Your task to perform on an android device: find photos in the google photos app Image 0: 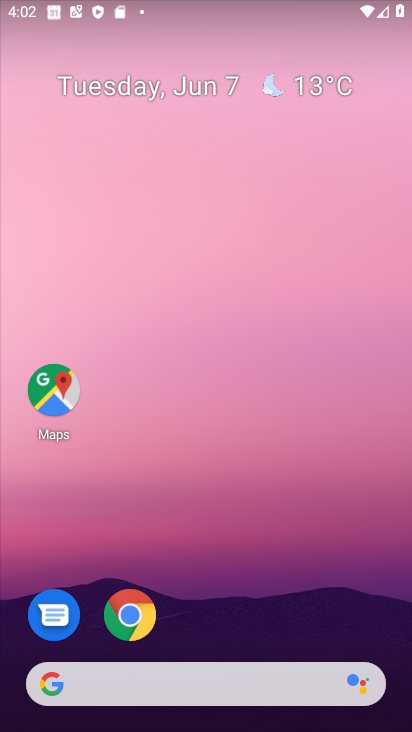
Step 0: drag from (235, 512) to (149, 75)
Your task to perform on an android device: find photos in the google photos app Image 1: 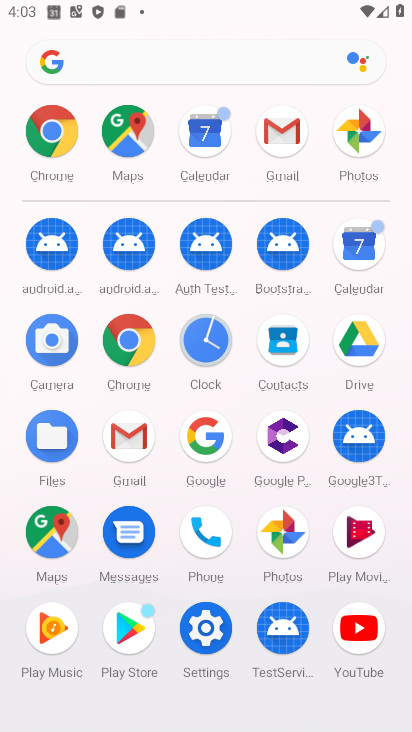
Step 1: click (278, 545)
Your task to perform on an android device: find photos in the google photos app Image 2: 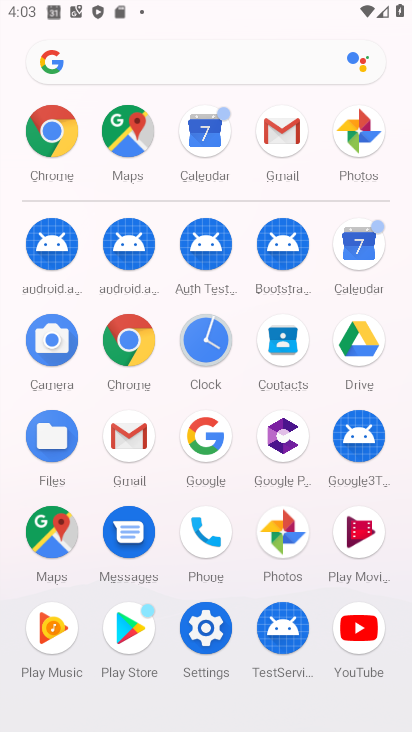
Step 2: click (278, 541)
Your task to perform on an android device: find photos in the google photos app Image 3: 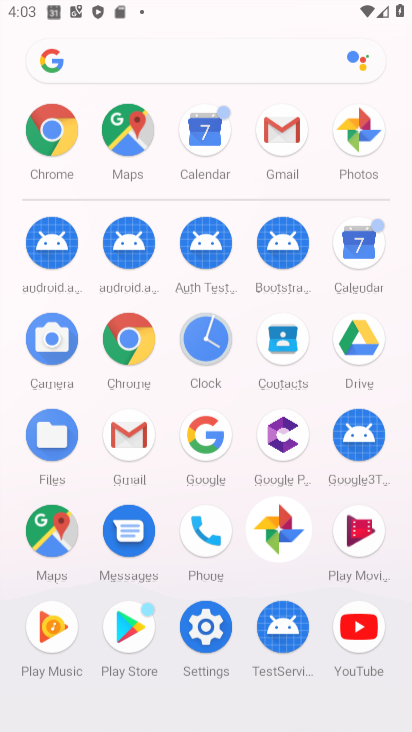
Step 3: click (277, 540)
Your task to perform on an android device: find photos in the google photos app Image 4: 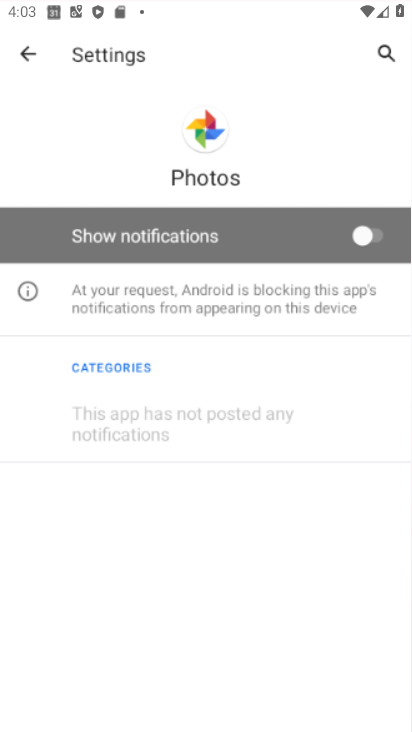
Step 4: click (277, 540)
Your task to perform on an android device: find photos in the google photos app Image 5: 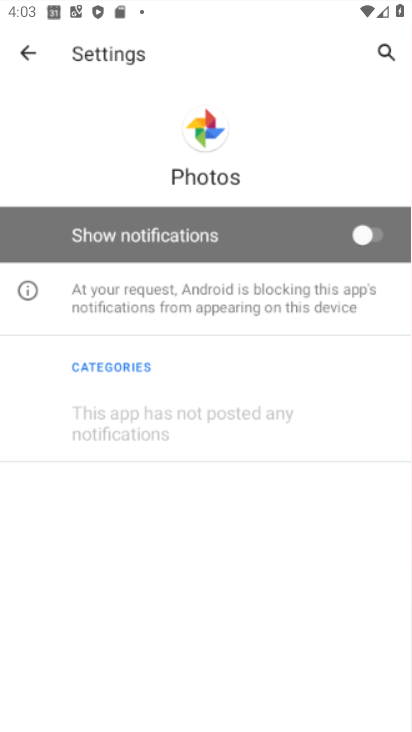
Step 5: click (272, 540)
Your task to perform on an android device: find photos in the google photos app Image 6: 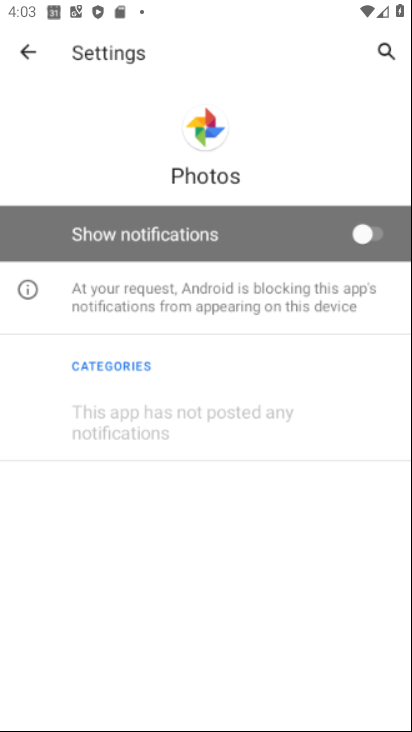
Step 6: click (270, 541)
Your task to perform on an android device: find photos in the google photos app Image 7: 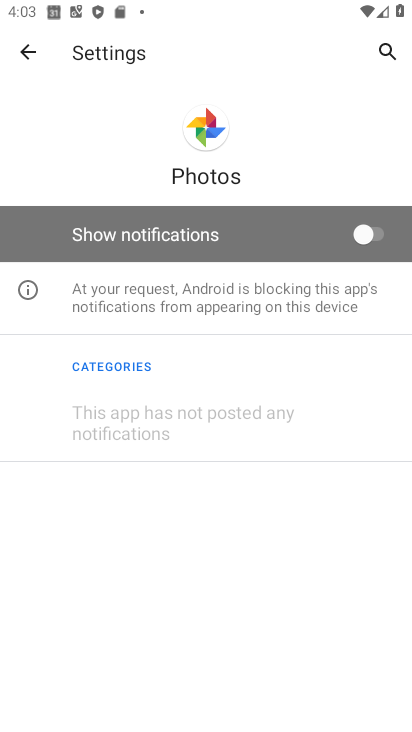
Step 7: click (22, 56)
Your task to perform on an android device: find photos in the google photos app Image 8: 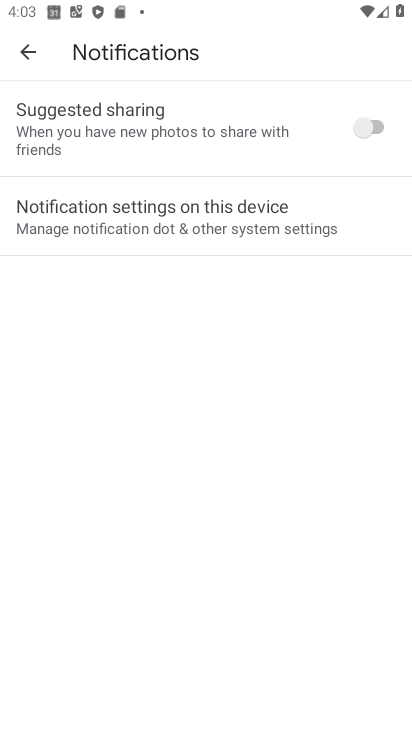
Step 8: click (28, 48)
Your task to perform on an android device: find photos in the google photos app Image 9: 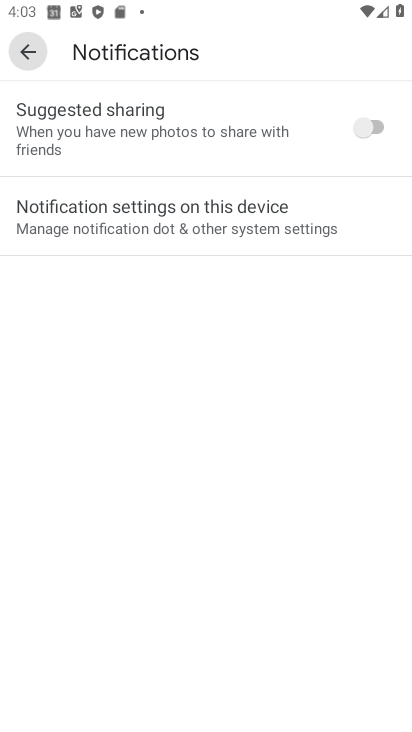
Step 9: click (27, 47)
Your task to perform on an android device: find photos in the google photos app Image 10: 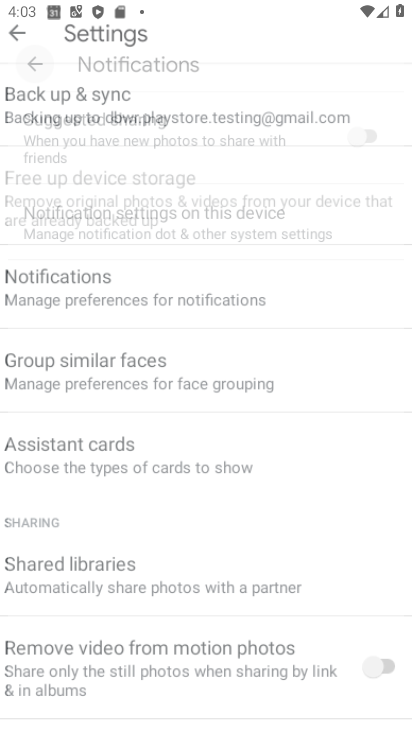
Step 10: click (25, 48)
Your task to perform on an android device: find photos in the google photos app Image 11: 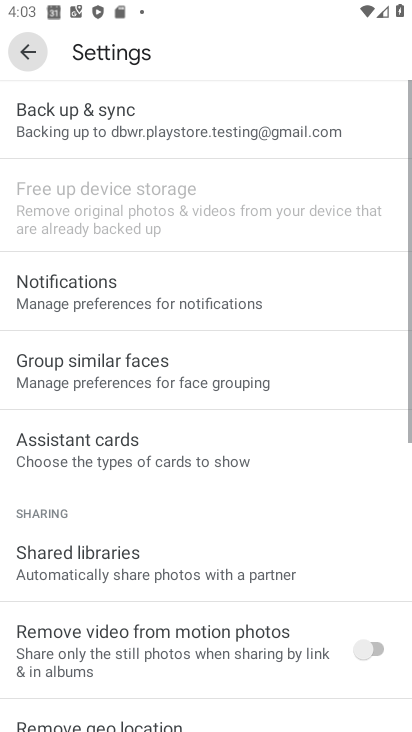
Step 11: click (21, 50)
Your task to perform on an android device: find photos in the google photos app Image 12: 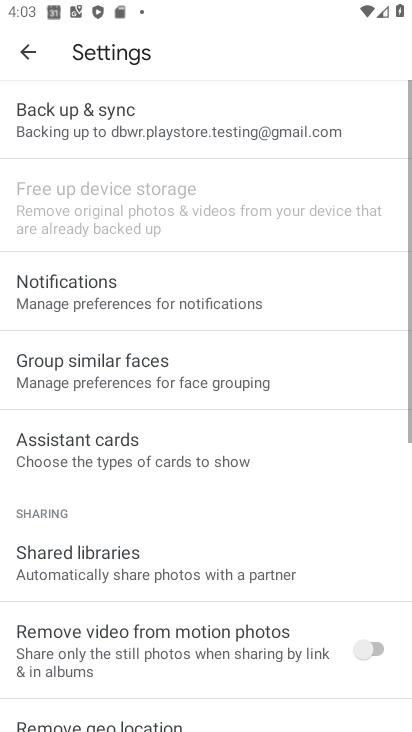
Step 12: click (20, 49)
Your task to perform on an android device: find photos in the google photos app Image 13: 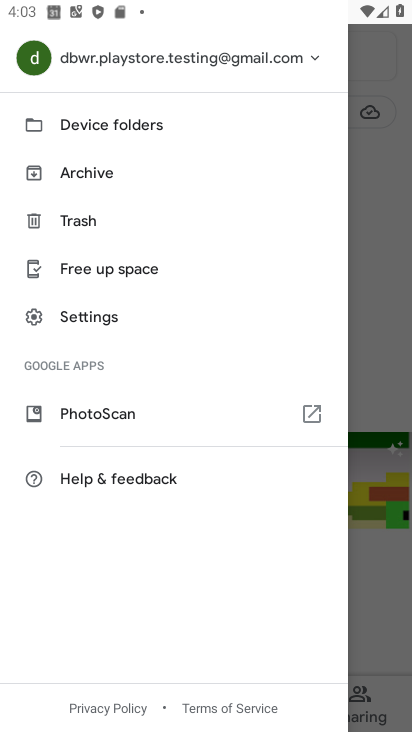
Step 13: click (359, 321)
Your task to perform on an android device: find photos in the google photos app Image 14: 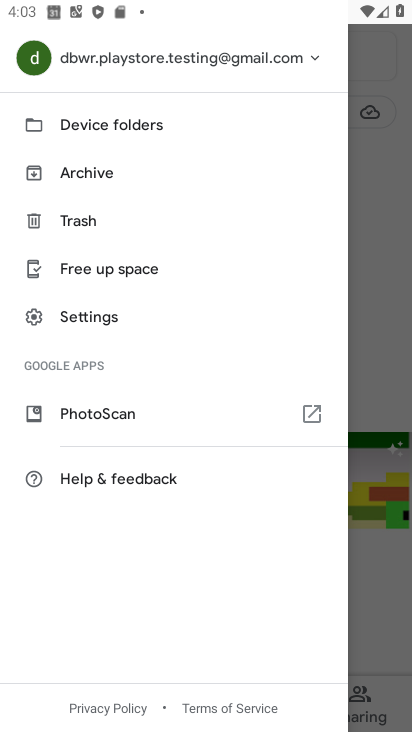
Step 14: click (359, 321)
Your task to perform on an android device: find photos in the google photos app Image 15: 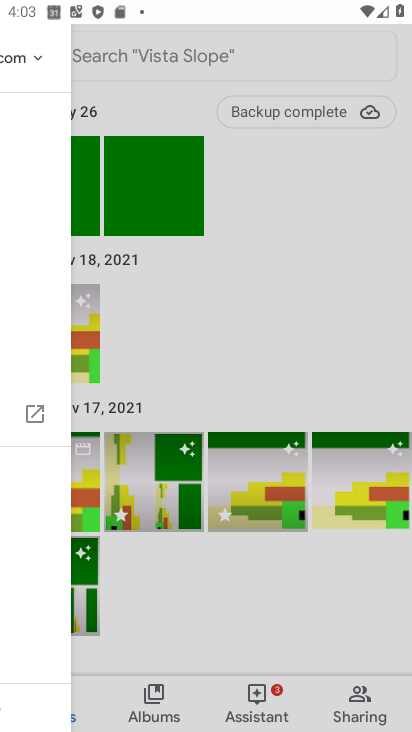
Step 15: click (359, 321)
Your task to perform on an android device: find photos in the google photos app Image 16: 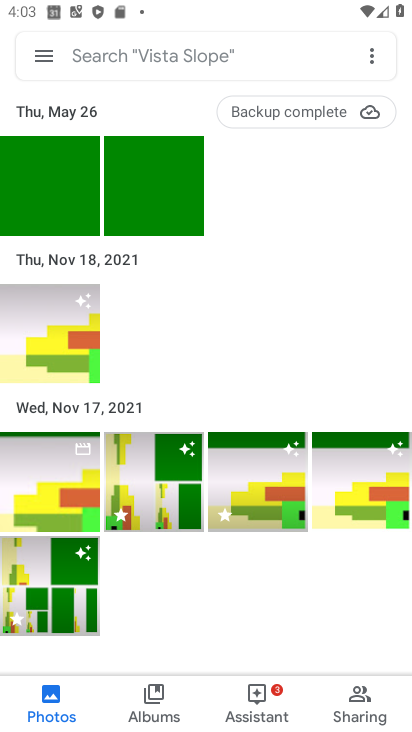
Step 16: click (359, 322)
Your task to perform on an android device: find photos in the google photos app Image 17: 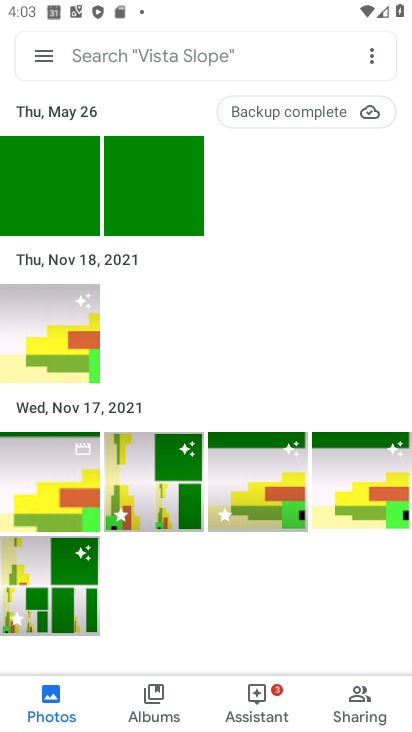
Step 17: task complete